Your task to perform on an android device: check google app version Image 0: 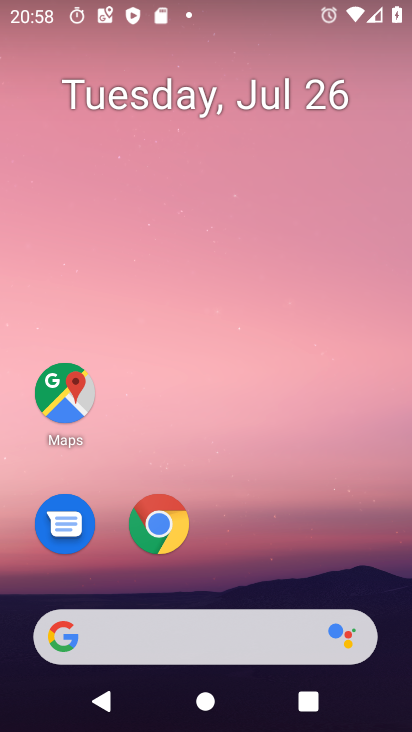
Step 0: click (219, 637)
Your task to perform on an android device: check google app version Image 1: 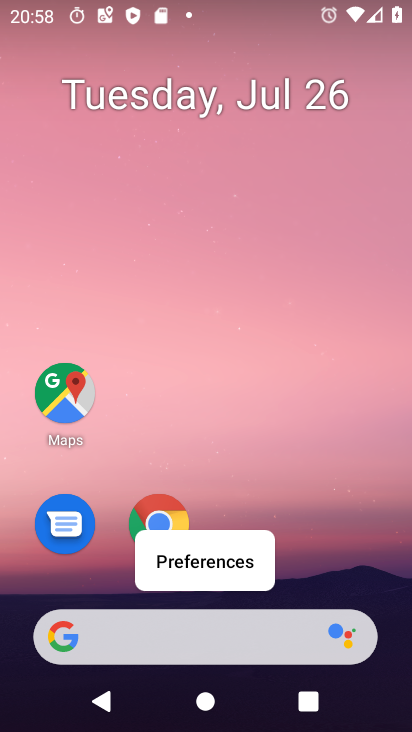
Step 1: click (219, 633)
Your task to perform on an android device: check google app version Image 2: 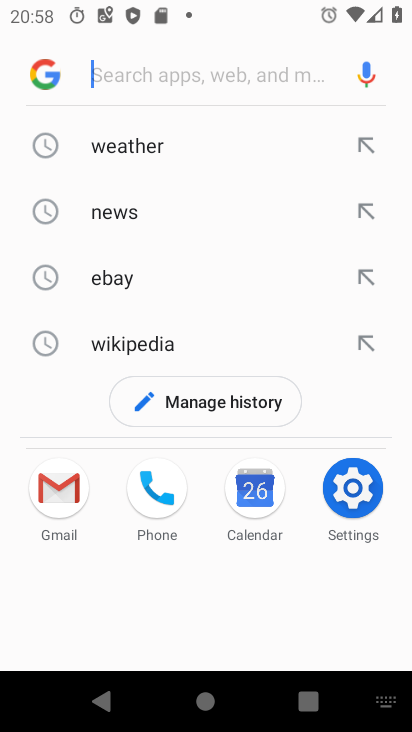
Step 2: click (46, 77)
Your task to perform on an android device: check google app version Image 3: 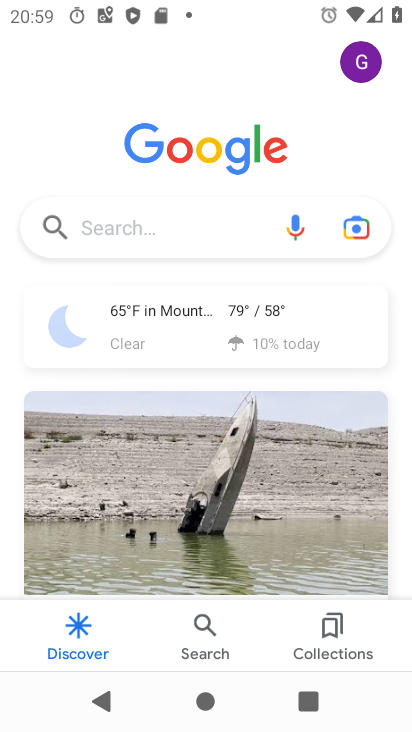
Step 3: click (359, 55)
Your task to perform on an android device: check google app version Image 4: 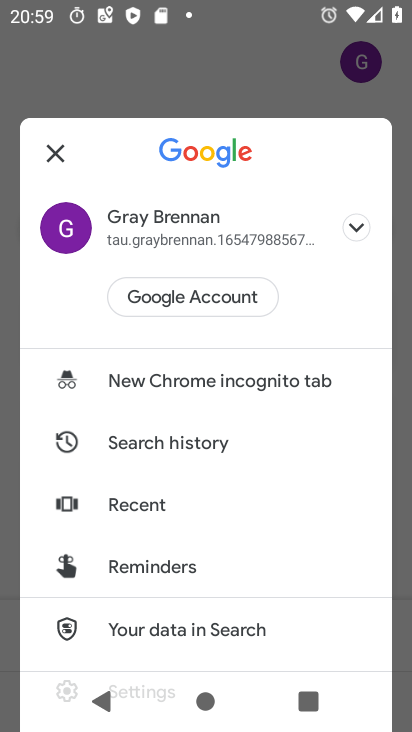
Step 4: drag from (241, 495) to (243, 73)
Your task to perform on an android device: check google app version Image 5: 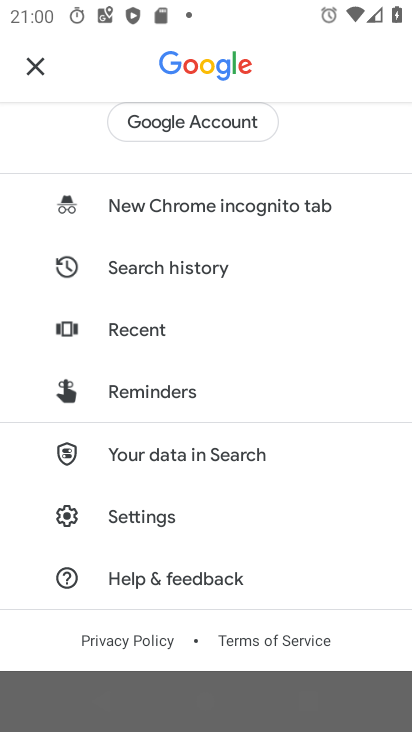
Step 5: click (153, 503)
Your task to perform on an android device: check google app version Image 6: 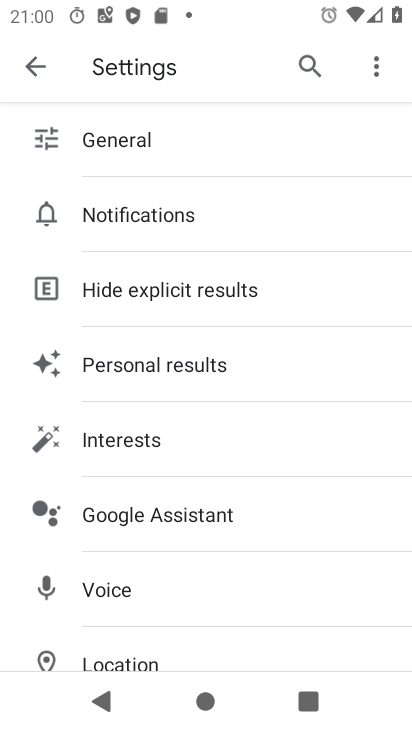
Step 6: drag from (213, 561) to (201, 137)
Your task to perform on an android device: check google app version Image 7: 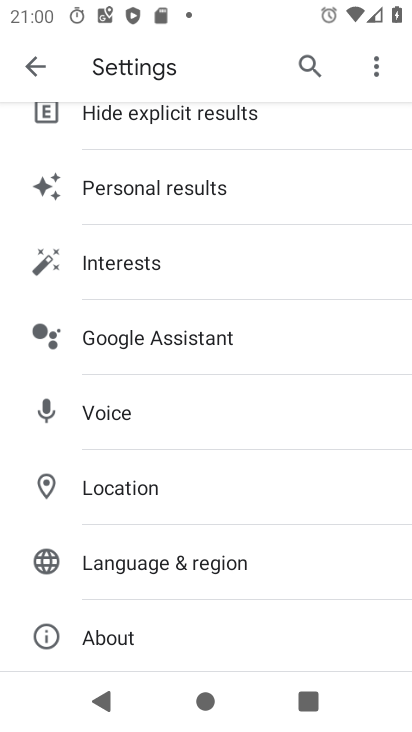
Step 7: click (119, 625)
Your task to perform on an android device: check google app version Image 8: 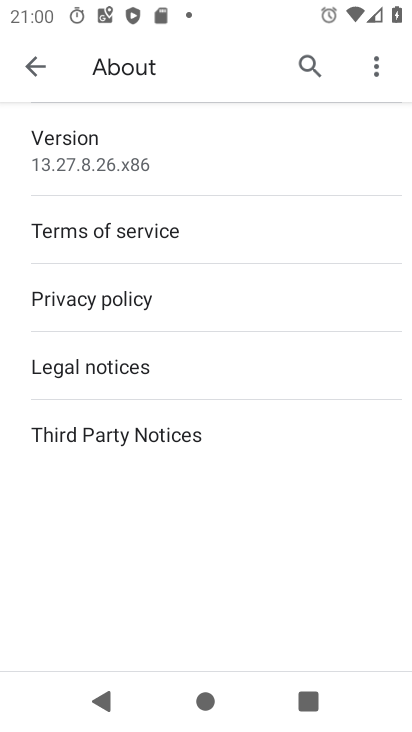
Step 8: task complete